Your task to perform on an android device: delete a single message in the gmail app Image 0: 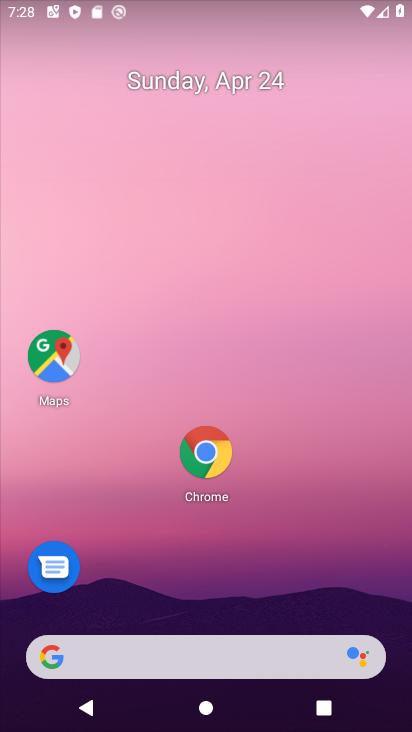
Step 0: drag from (337, 479) to (292, 2)
Your task to perform on an android device: delete a single message in the gmail app Image 1: 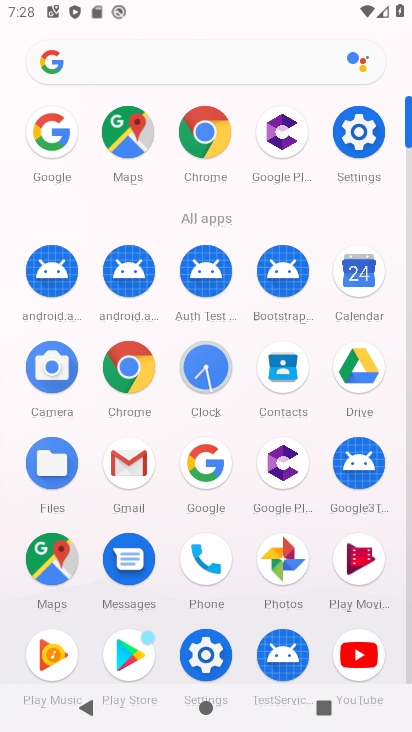
Step 1: click (139, 465)
Your task to perform on an android device: delete a single message in the gmail app Image 2: 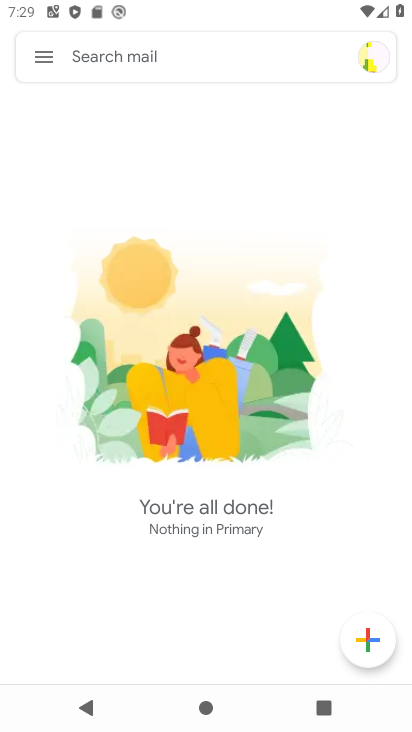
Step 2: click (43, 56)
Your task to perform on an android device: delete a single message in the gmail app Image 3: 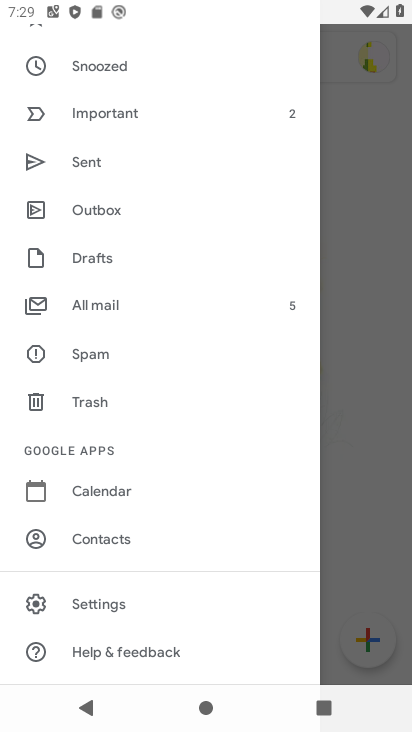
Step 3: click (111, 305)
Your task to perform on an android device: delete a single message in the gmail app Image 4: 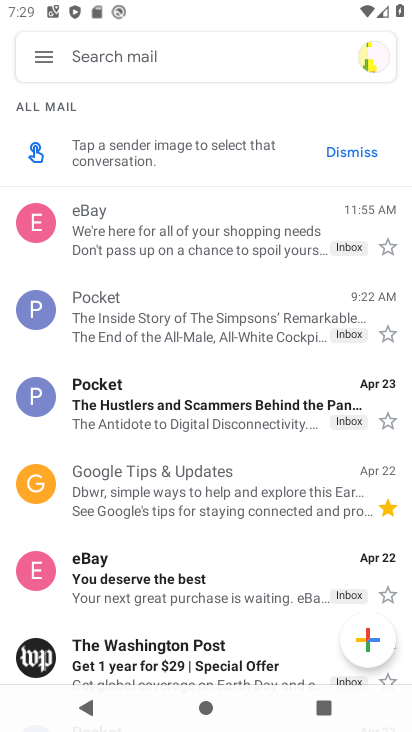
Step 4: click (127, 249)
Your task to perform on an android device: delete a single message in the gmail app Image 5: 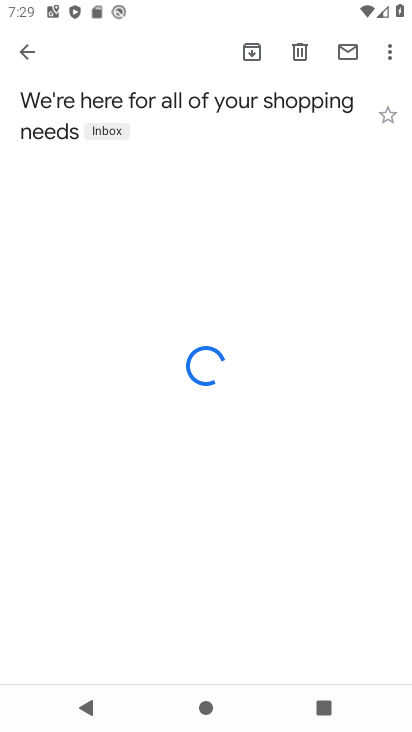
Step 5: click (301, 55)
Your task to perform on an android device: delete a single message in the gmail app Image 6: 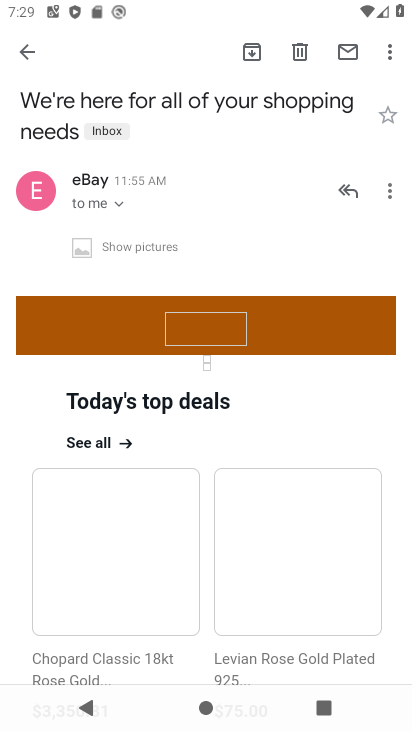
Step 6: click (301, 55)
Your task to perform on an android device: delete a single message in the gmail app Image 7: 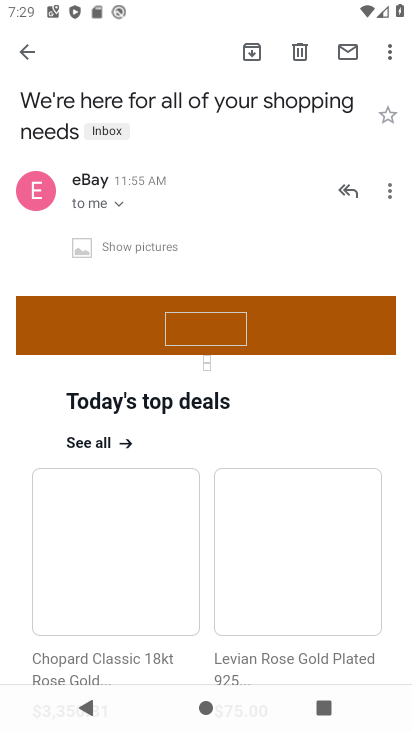
Step 7: click (301, 55)
Your task to perform on an android device: delete a single message in the gmail app Image 8: 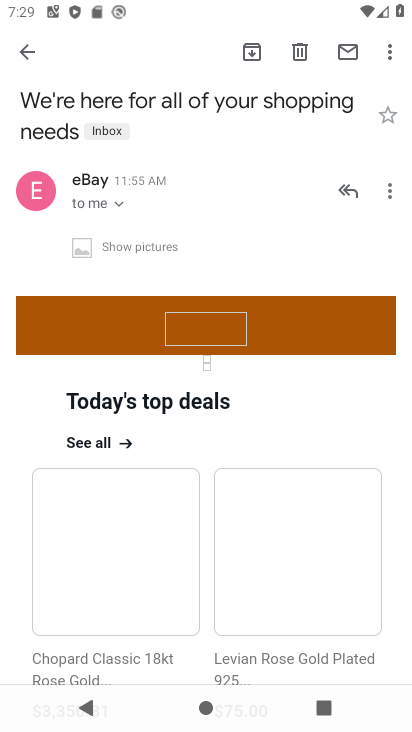
Step 8: click (301, 55)
Your task to perform on an android device: delete a single message in the gmail app Image 9: 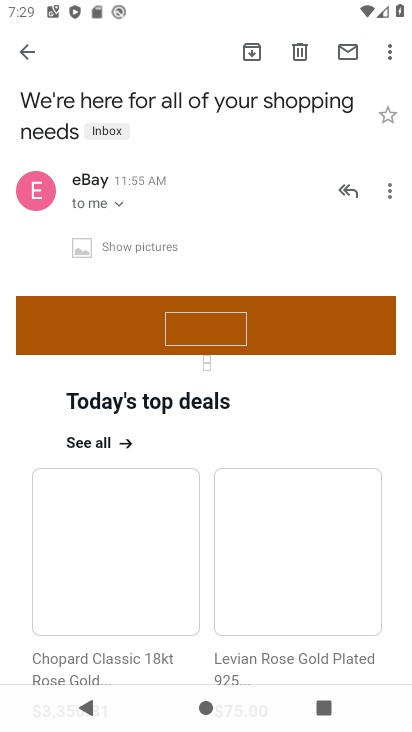
Step 9: click (291, 46)
Your task to perform on an android device: delete a single message in the gmail app Image 10: 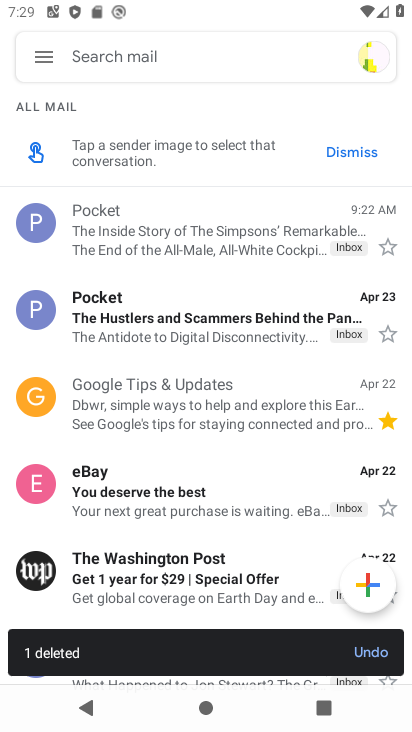
Step 10: task complete